Your task to perform on an android device: change notifications settings Image 0: 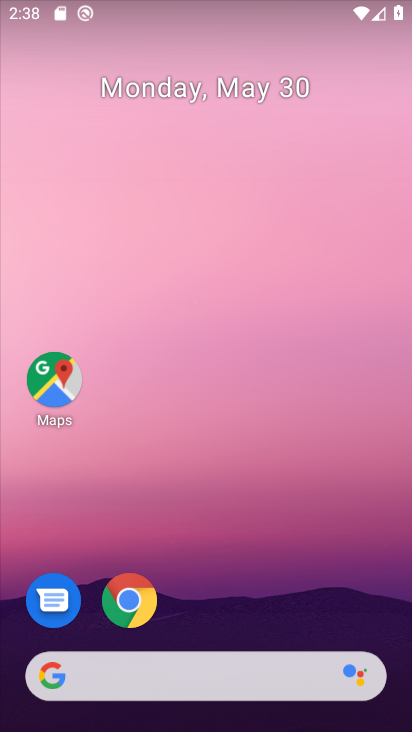
Step 0: drag from (332, 616) to (3, 357)
Your task to perform on an android device: change notifications settings Image 1: 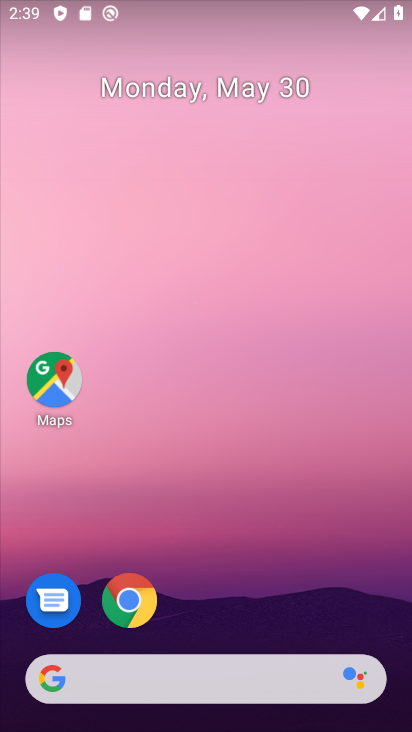
Step 1: drag from (273, 276) to (220, 48)
Your task to perform on an android device: change notifications settings Image 2: 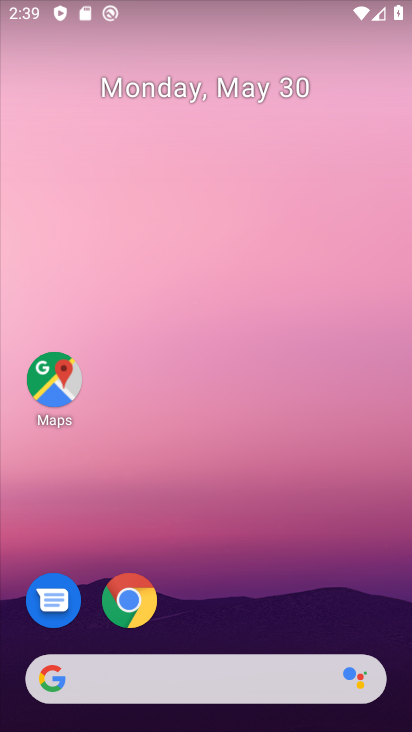
Step 2: drag from (325, 537) to (287, 49)
Your task to perform on an android device: change notifications settings Image 3: 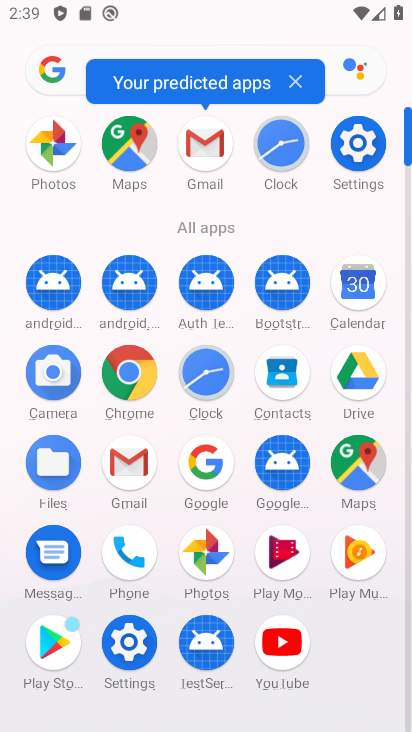
Step 3: click (356, 138)
Your task to perform on an android device: change notifications settings Image 4: 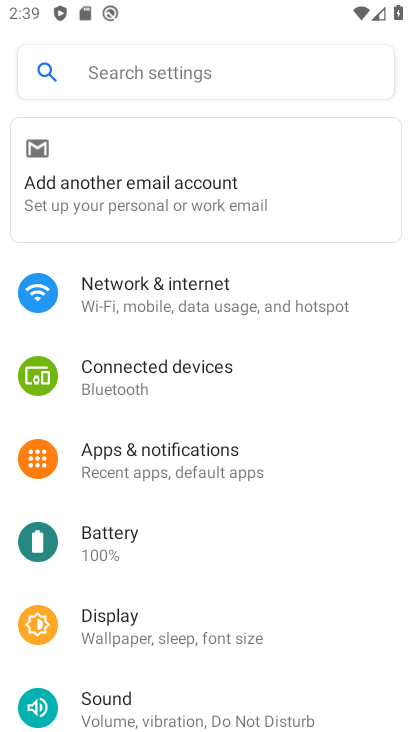
Step 4: click (174, 456)
Your task to perform on an android device: change notifications settings Image 5: 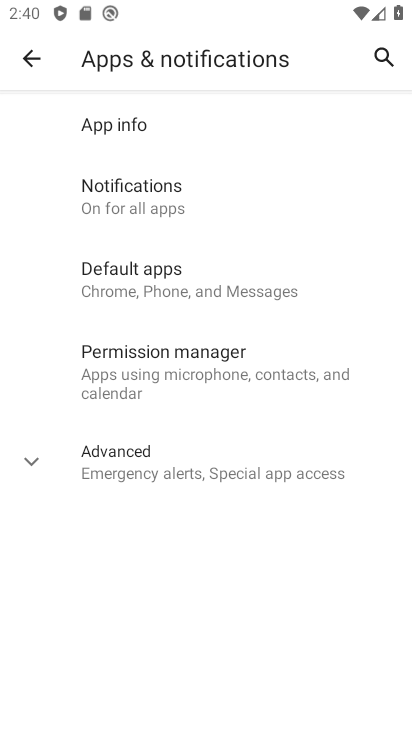
Step 5: click (140, 182)
Your task to perform on an android device: change notifications settings Image 6: 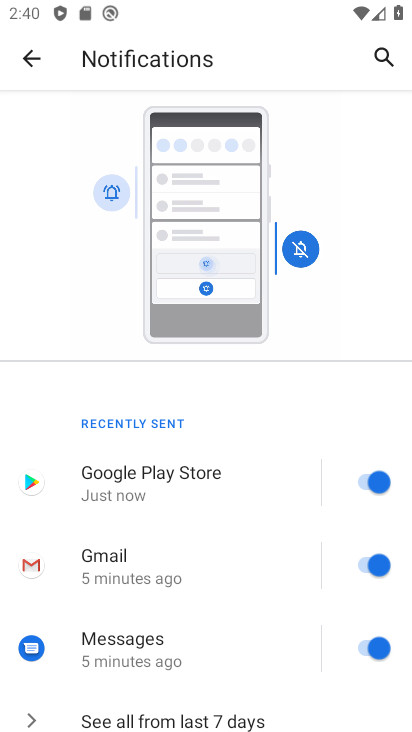
Step 6: drag from (237, 580) to (249, 242)
Your task to perform on an android device: change notifications settings Image 7: 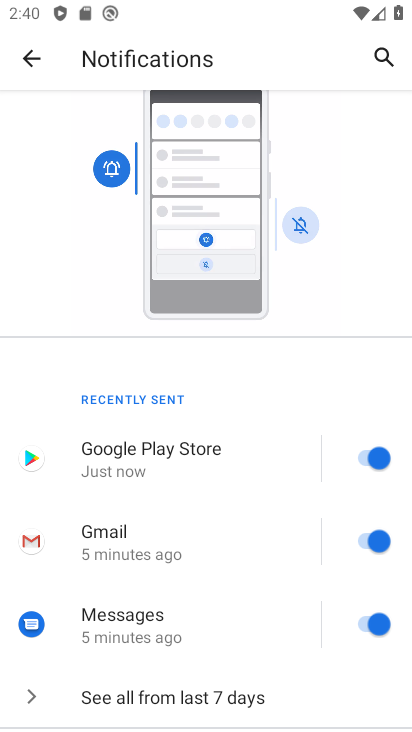
Step 7: click (381, 468)
Your task to perform on an android device: change notifications settings Image 8: 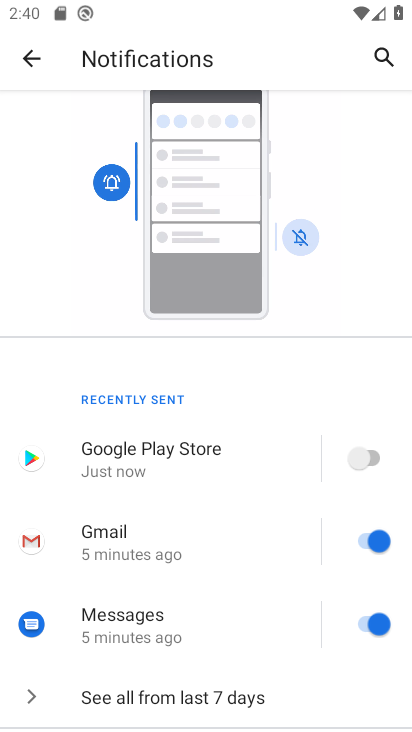
Step 8: task complete